Your task to perform on an android device: What's the news in Jamaica? Image 0: 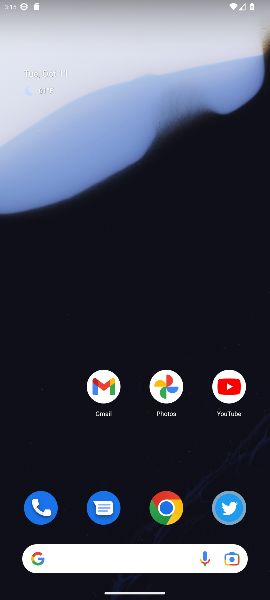
Step 0: click (173, 506)
Your task to perform on an android device: What's the news in Jamaica? Image 1: 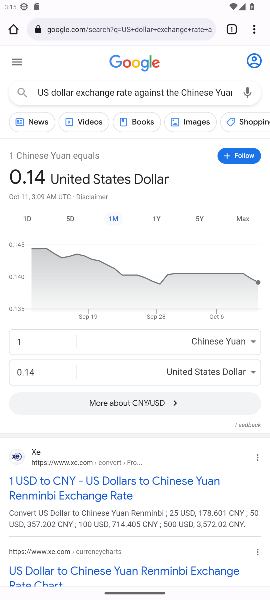
Step 1: click (177, 93)
Your task to perform on an android device: What's the news in Jamaica? Image 2: 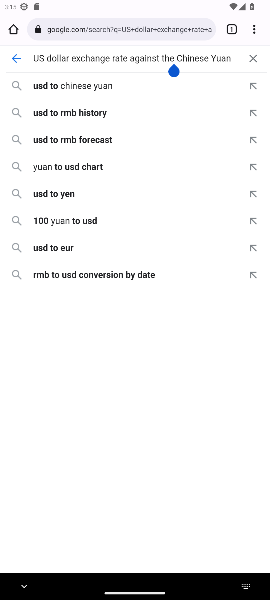
Step 2: click (255, 58)
Your task to perform on an android device: What's the news in Jamaica? Image 3: 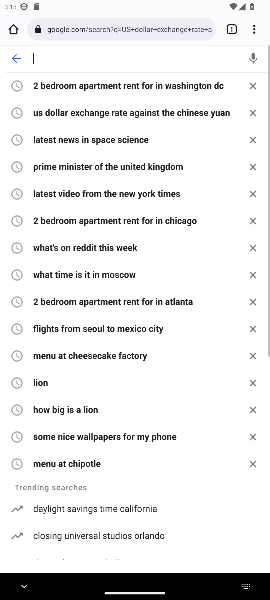
Step 3: type "Jamaica"
Your task to perform on an android device: What's the news in Jamaica? Image 4: 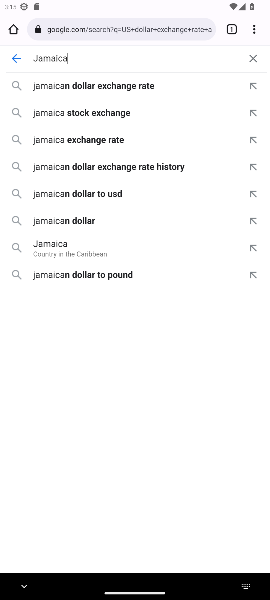
Step 4: type ""
Your task to perform on an android device: What's the news in Jamaica? Image 5: 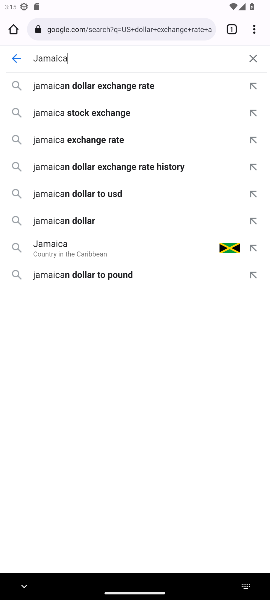
Step 5: press enter
Your task to perform on an android device: What's the news in Jamaica? Image 6: 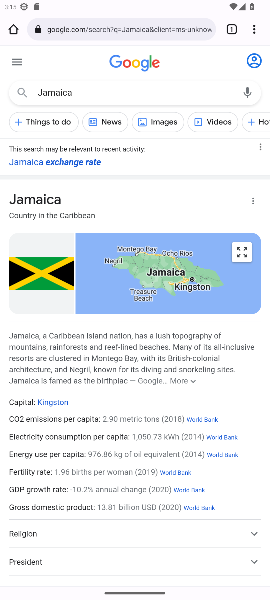
Step 6: click (106, 118)
Your task to perform on an android device: What's the news in Jamaica? Image 7: 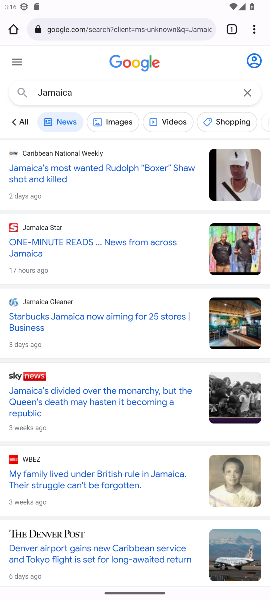
Step 7: task complete